Your task to perform on an android device: turn on the 24-hour format for clock Image 0: 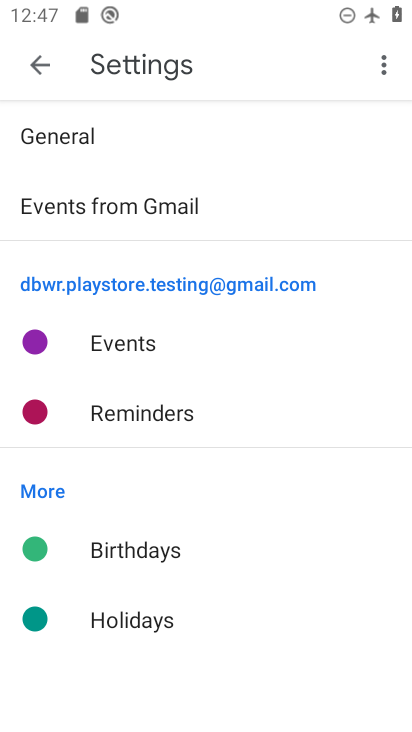
Step 0: press home button
Your task to perform on an android device: turn on the 24-hour format for clock Image 1: 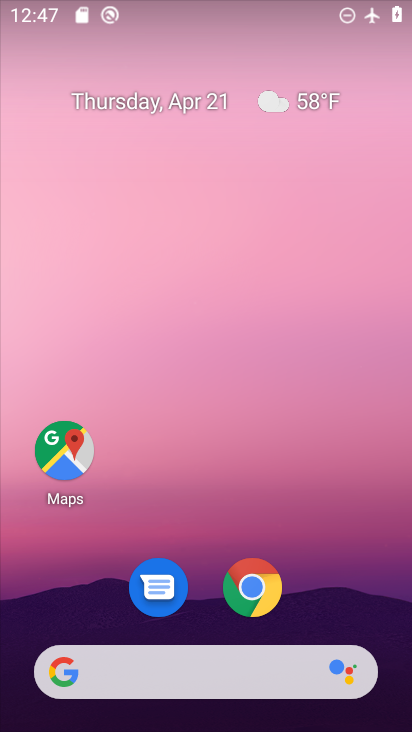
Step 1: drag from (198, 602) to (363, 10)
Your task to perform on an android device: turn on the 24-hour format for clock Image 2: 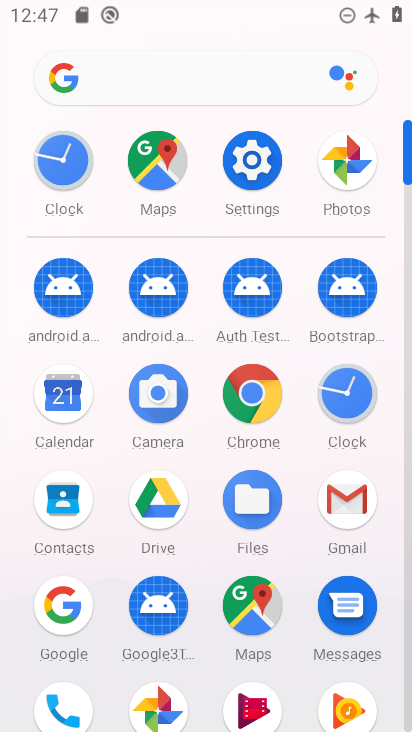
Step 2: click (354, 422)
Your task to perform on an android device: turn on the 24-hour format for clock Image 3: 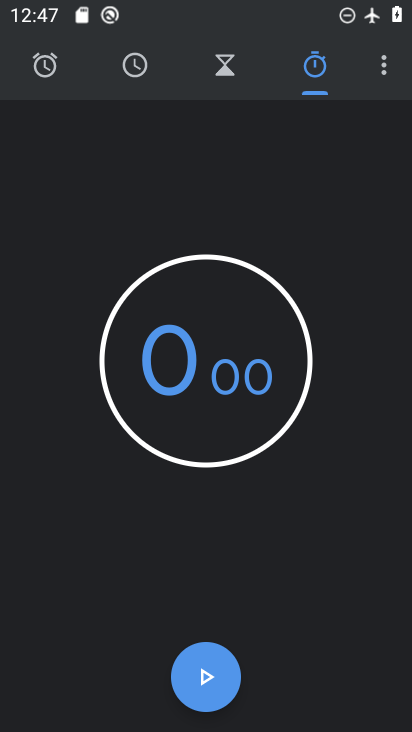
Step 3: click (381, 77)
Your task to perform on an android device: turn on the 24-hour format for clock Image 4: 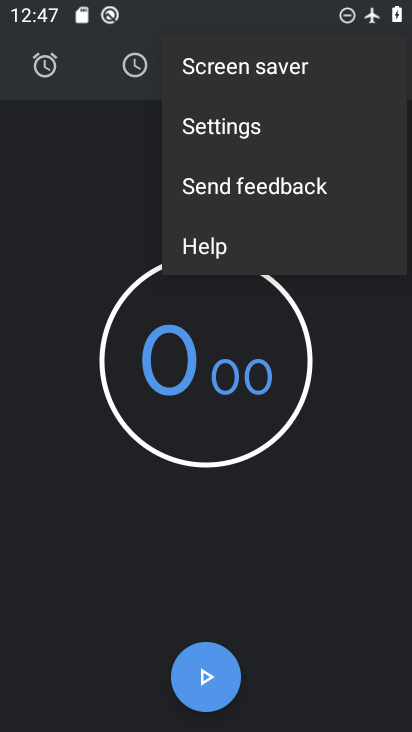
Step 4: press home button
Your task to perform on an android device: turn on the 24-hour format for clock Image 5: 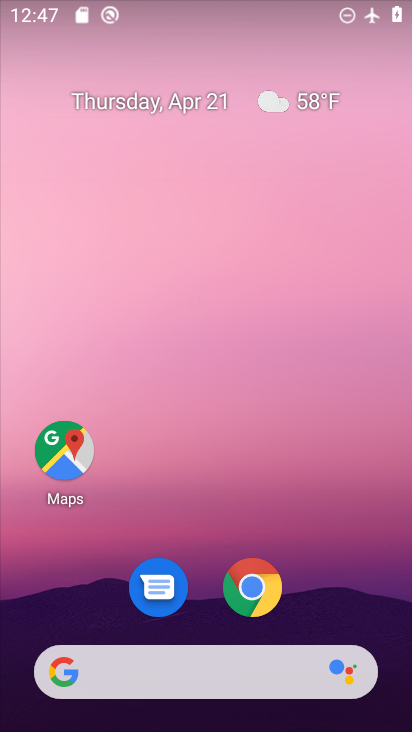
Step 5: drag from (204, 610) to (274, 44)
Your task to perform on an android device: turn on the 24-hour format for clock Image 6: 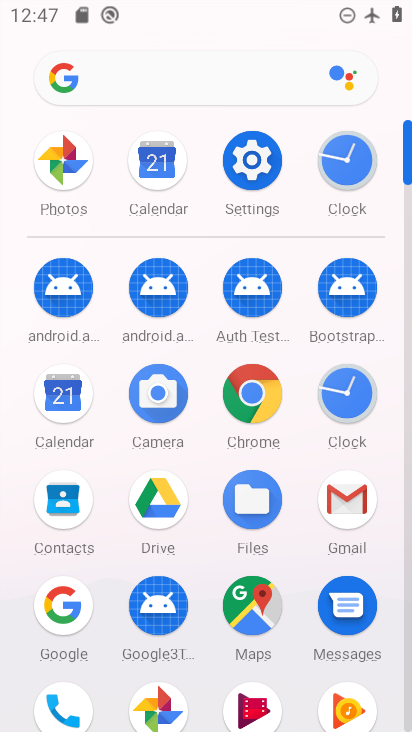
Step 6: click (259, 175)
Your task to perform on an android device: turn on the 24-hour format for clock Image 7: 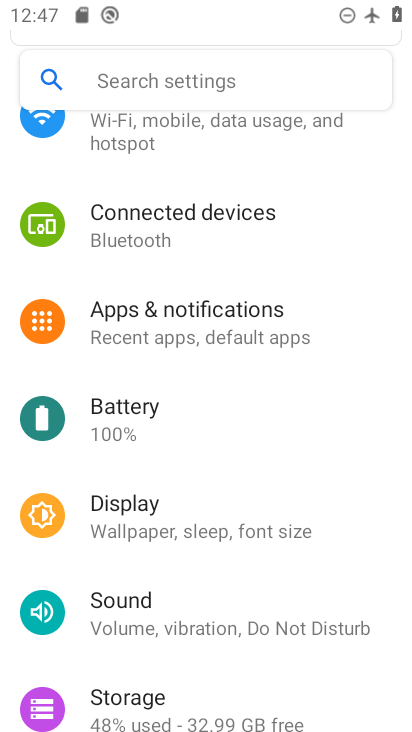
Step 7: drag from (129, 568) to (268, 114)
Your task to perform on an android device: turn on the 24-hour format for clock Image 8: 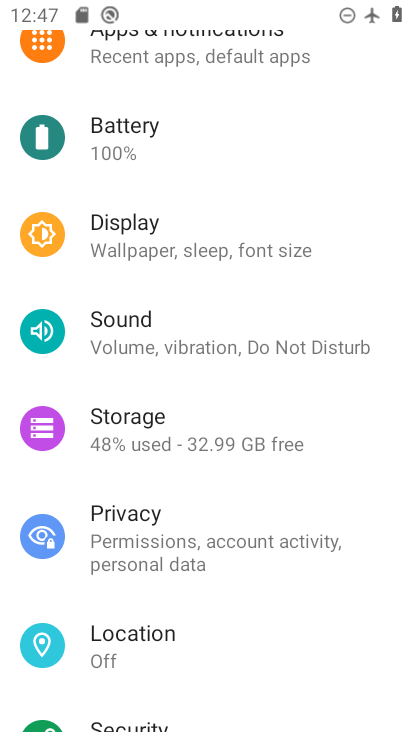
Step 8: drag from (97, 659) to (188, 128)
Your task to perform on an android device: turn on the 24-hour format for clock Image 9: 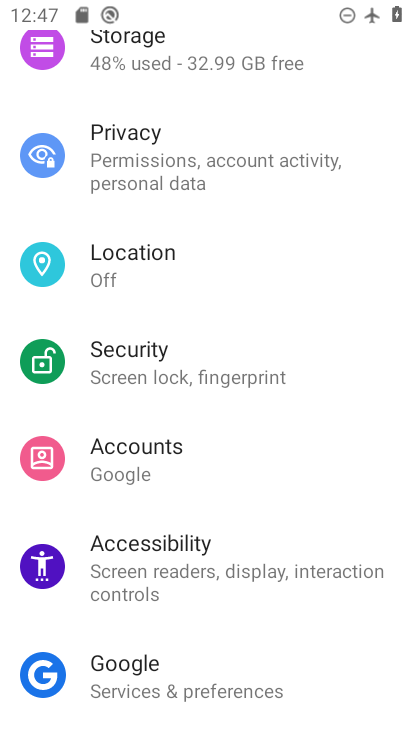
Step 9: drag from (117, 612) to (195, 154)
Your task to perform on an android device: turn on the 24-hour format for clock Image 10: 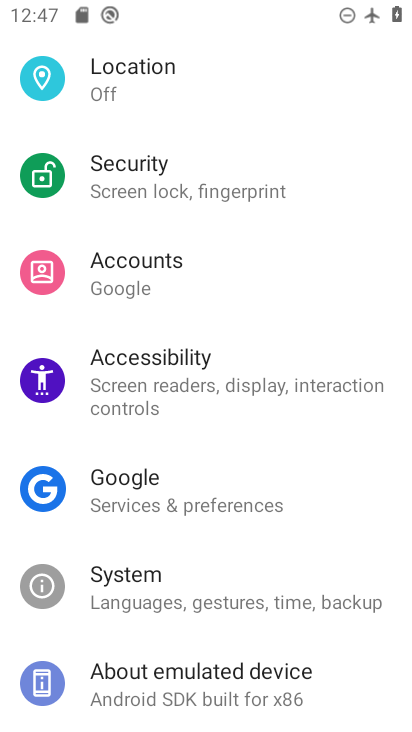
Step 10: click (162, 601)
Your task to perform on an android device: turn on the 24-hour format for clock Image 11: 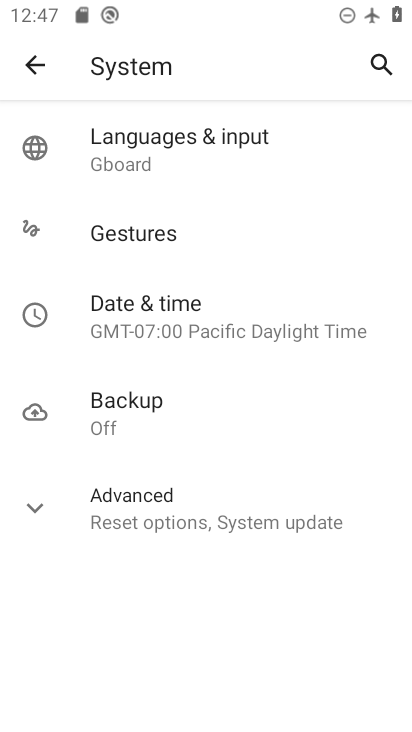
Step 11: click (184, 320)
Your task to perform on an android device: turn on the 24-hour format for clock Image 12: 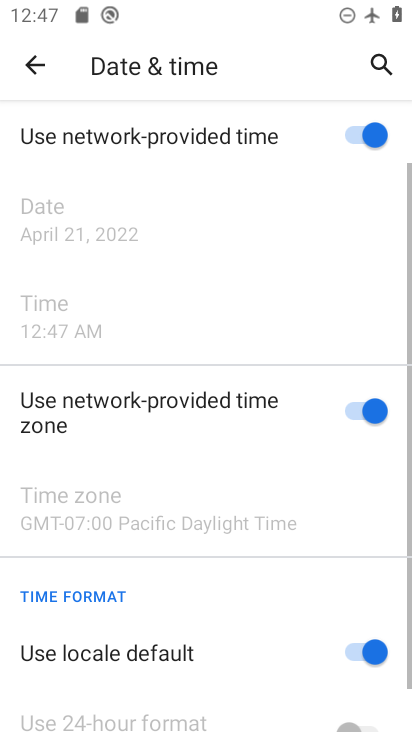
Step 12: click (258, 136)
Your task to perform on an android device: turn on the 24-hour format for clock Image 13: 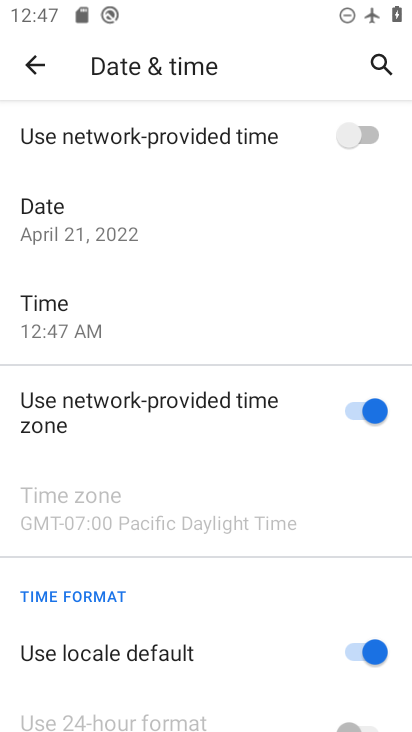
Step 13: drag from (277, 611) to (310, 248)
Your task to perform on an android device: turn on the 24-hour format for clock Image 14: 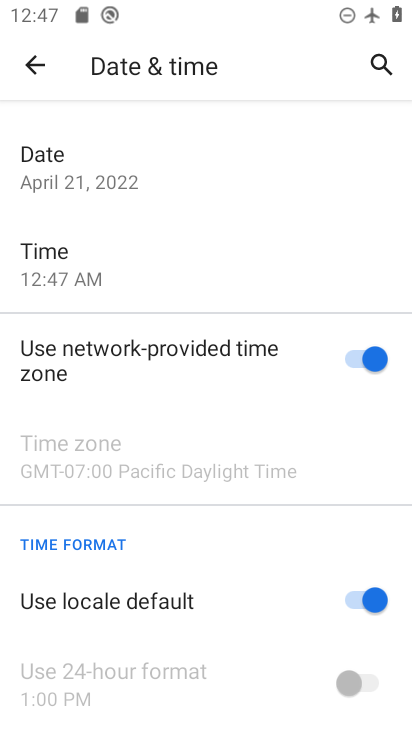
Step 14: click (343, 597)
Your task to perform on an android device: turn on the 24-hour format for clock Image 15: 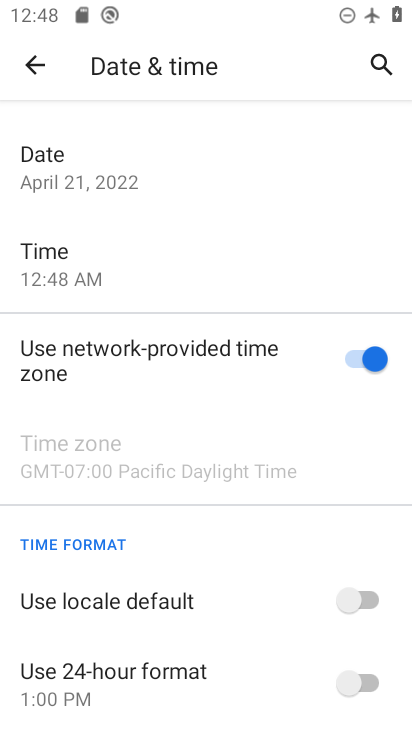
Step 15: click (373, 685)
Your task to perform on an android device: turn on the 24-hour format for clock Image 16: 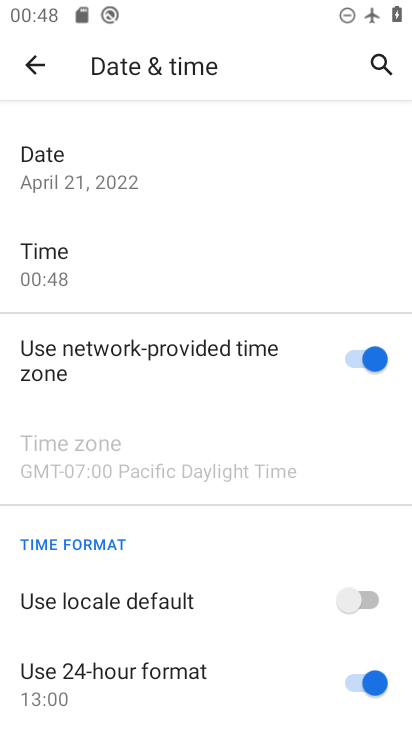
Step 16: task complete